Your task to perform on an android device: Go to wifi settings Image 0: 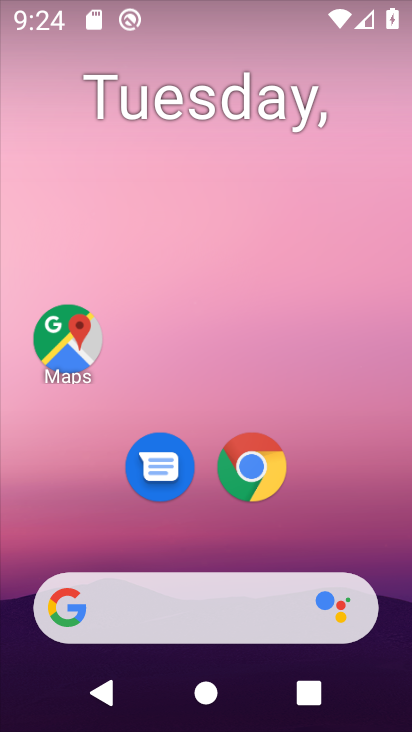
Step 0: drag from (325, 531) to (359, 166)
Your task to perform on an android device: Go to wifi settings Image 1: 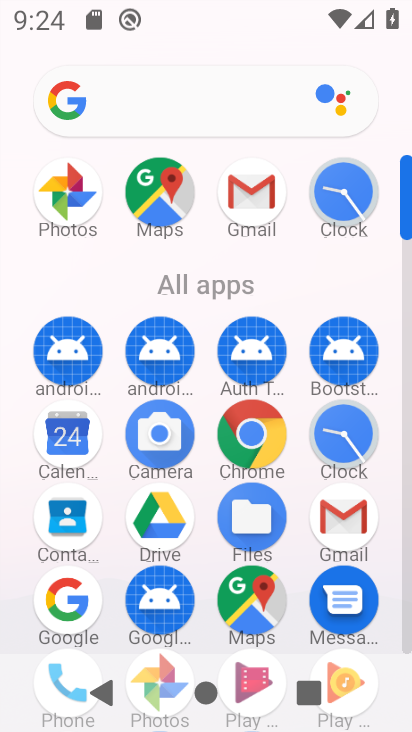
Step 1: drag from (218, 544) to (239, 292)
Your task to perform on an android device: Go to wifi settings Image 2: 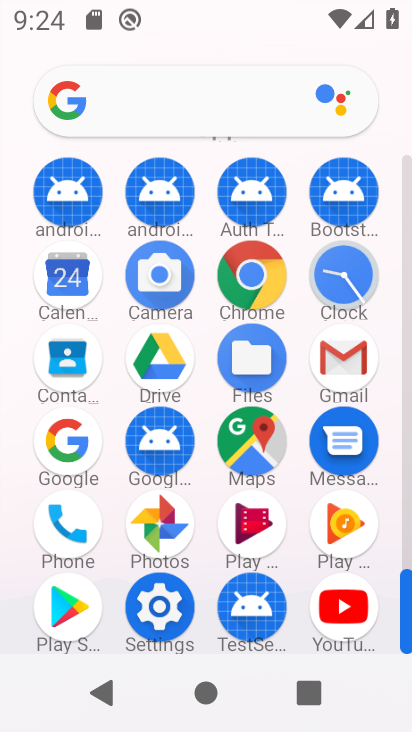
Step 2: click (164, 623)
Your task to perform on an android device: Go to wifi settings Image 3: 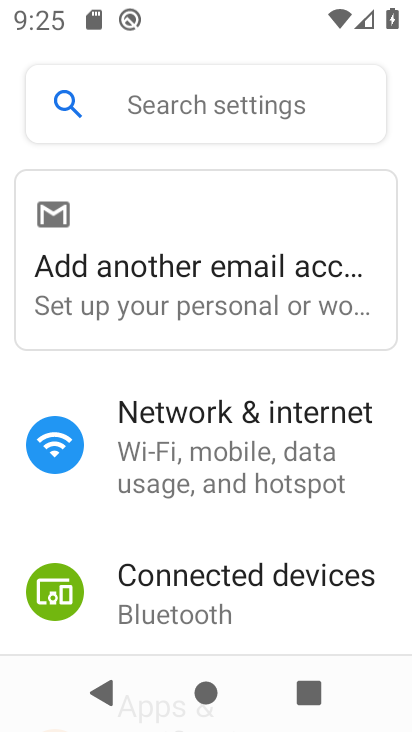
Step 3: click (238, 478)
Your task to perform on an android device: Go to wifi settings Image 4: 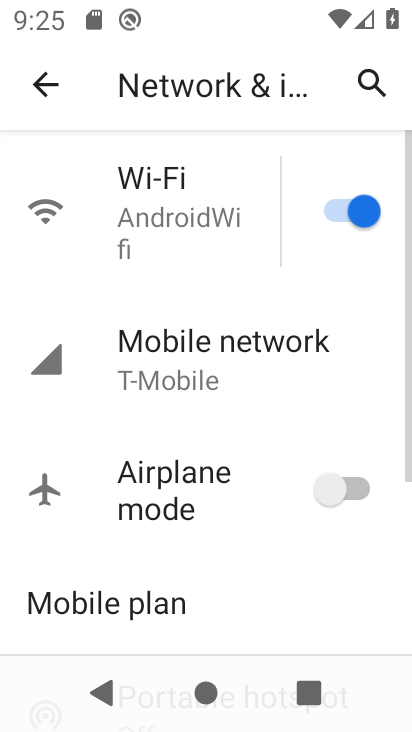
Step 4: click (196, 241)
Your task to perform on an android device: Go to wifi settings Image 5: 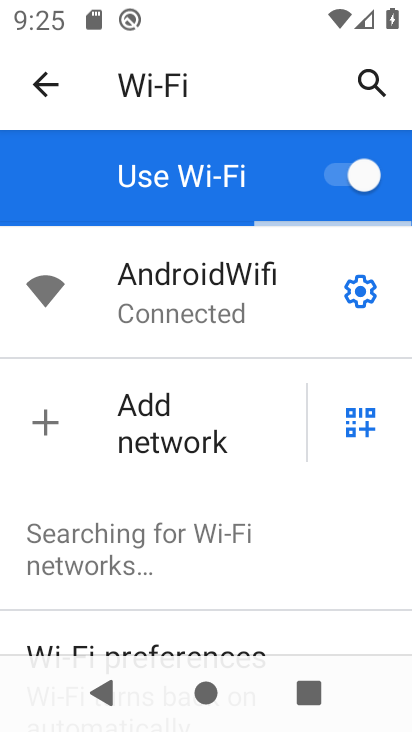
Step 5: click (364, 300)
Your task to perform on an android device: Go to wifi settings Image 6: 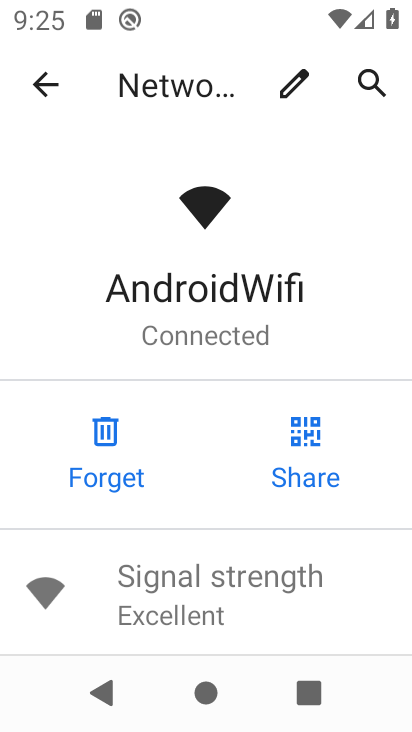
Step 6: task complete